Your task to perform on an android device: toggle airplane mode Image 0: 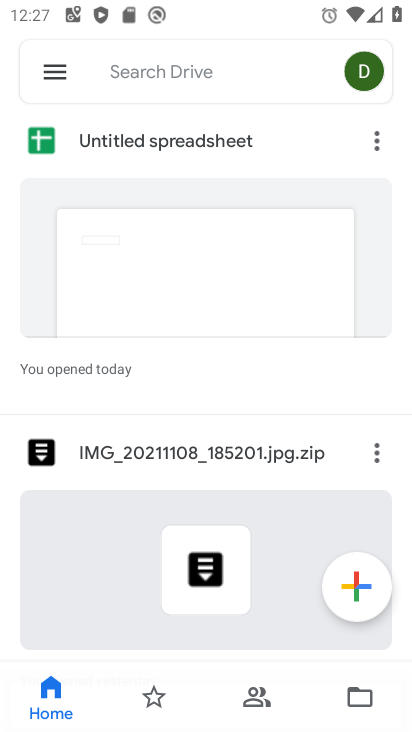
Step 0: press home button
Your task to perform on an android device: toggle airplane mode Image 1: 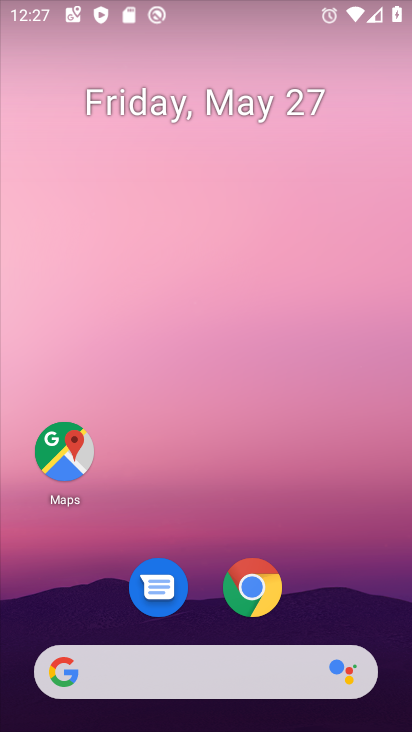
Step 1: drag from (241, 681) to (275, 230)
Your task to perform on an android device: toggle airplane mode Image 2: 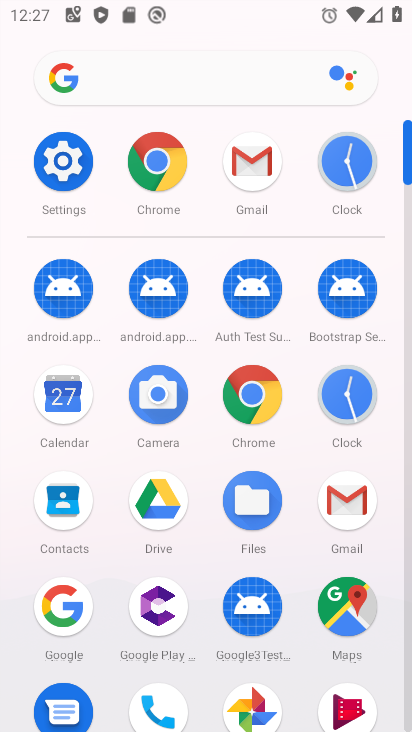
Step 2: click (58, 165)
Your task to perform on an android device: toggle airplane mode Image 3: 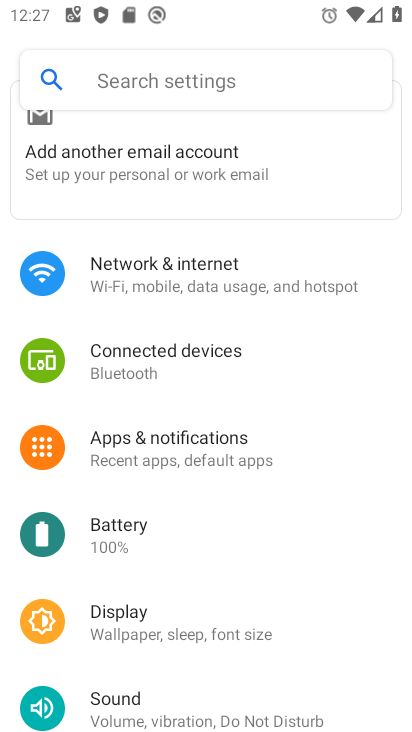
Step 3: click (162, 273)
Your task to perform on an android device: toggle airplane mode Image 4: 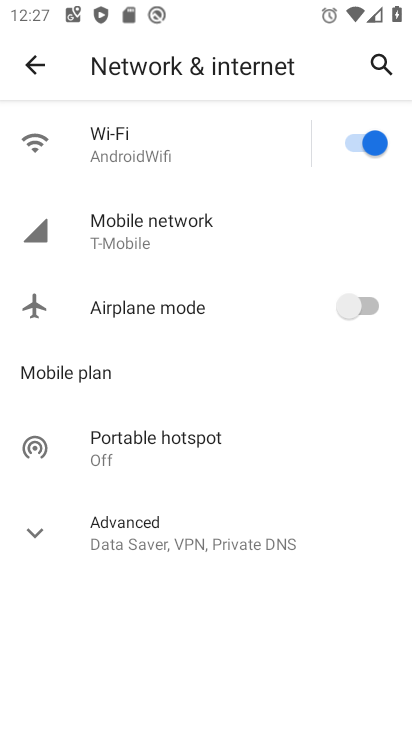
Step 4: task complete